Your task to perform on an android device: Open calendar and show me the second week of next month Image 0: 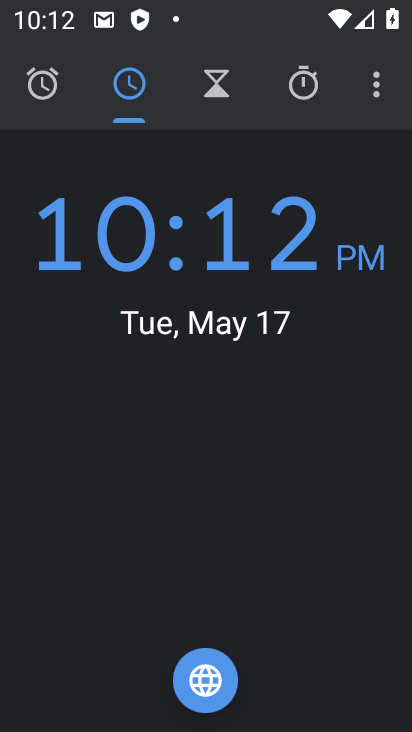
Step 0: press home button
Your task to perform on an android device: Open calendar and show me the second week of next month Image 1: 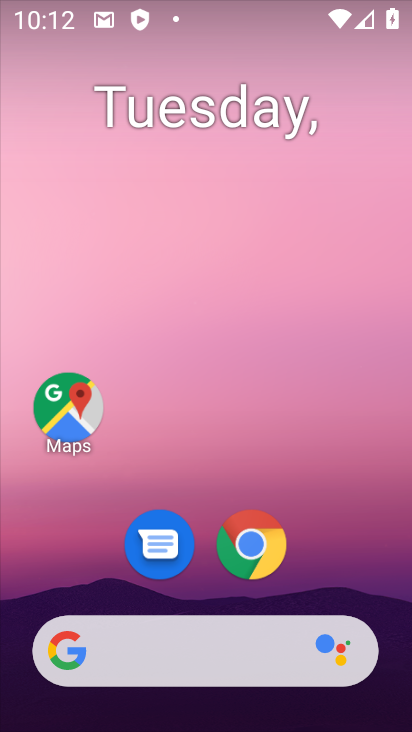
Step 1: drag from (368, 587) to (312, 167)
Your task to perform on an android device: Open calendar and show me the second week of next month Image 2: 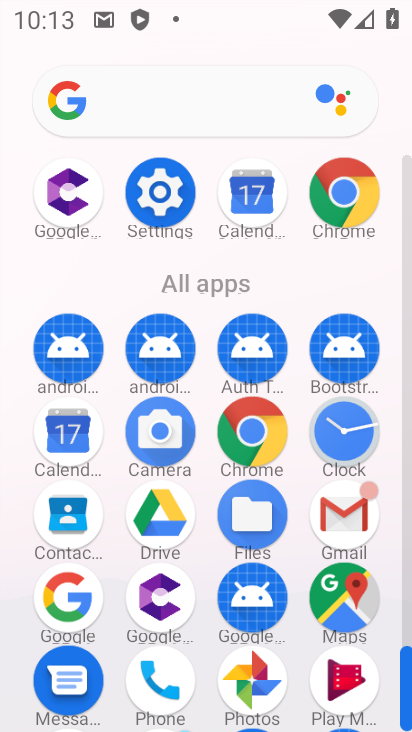
Step 2: click (252, 185)
Your task to perform on an android device: Open calendar and show me the second week of next month Image 3: 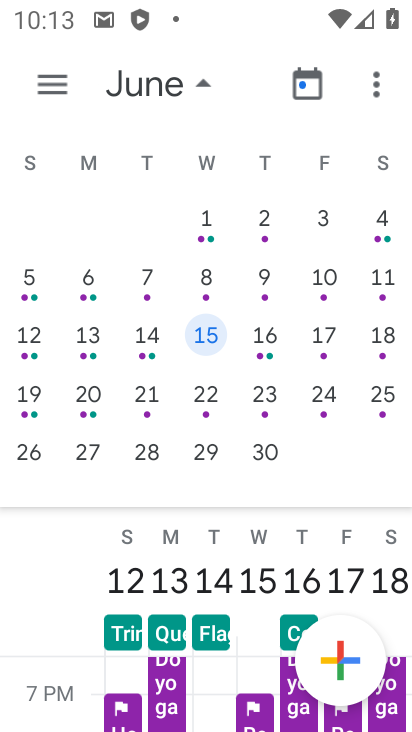
Step 3: click (205, 289)
Your task to perform on an android device: Open calendar and show me the second week of next month Image 4: 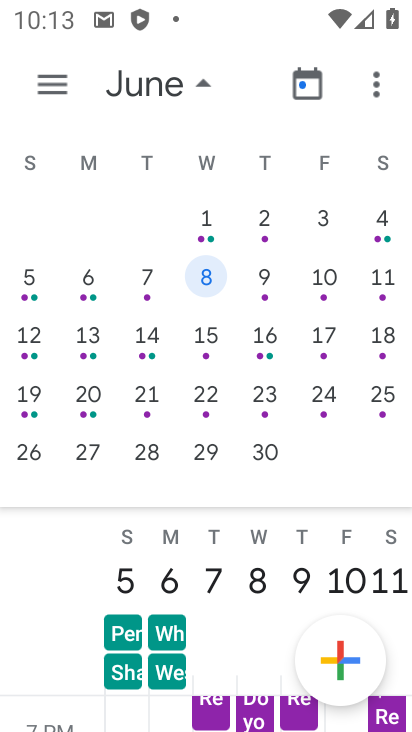
Step 4: task complete